Your task to perform on an android device: Open Wikipedia Image 0: 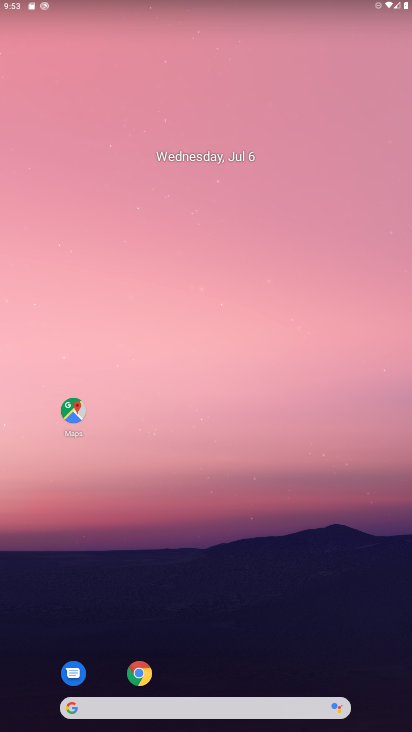
Step 0: click (131, 674)
Your task to perform on an android device: Open Wikipedia Image 1: 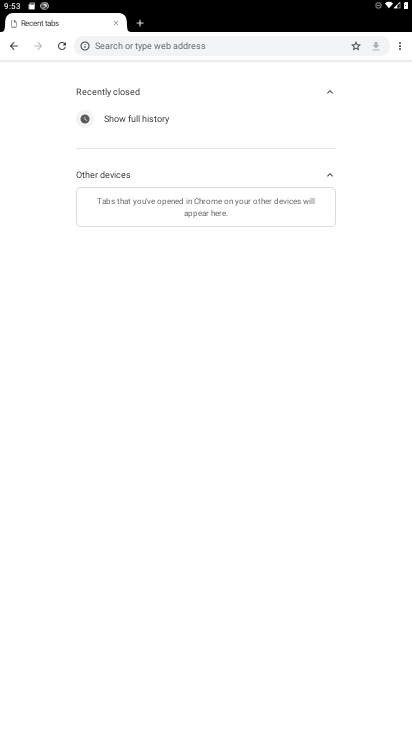
Step 1: click (147, 24)
Your task to perform on an android device: Open Wikipedia Image 2: 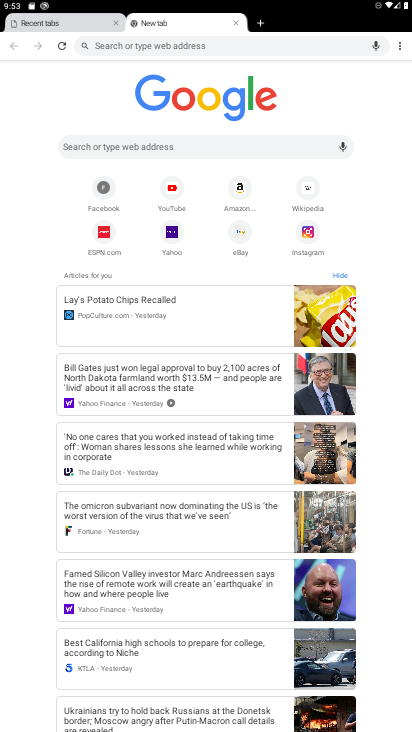
Step 2: click (311, 184)
Your task to perform on an android device: Open Wikipedia Image 3: 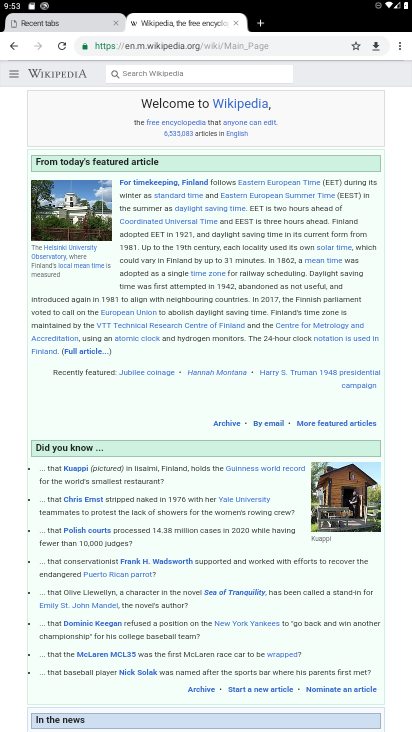
Step 3: task complete